Your task to perform on an android device: Go to Google Image 0: 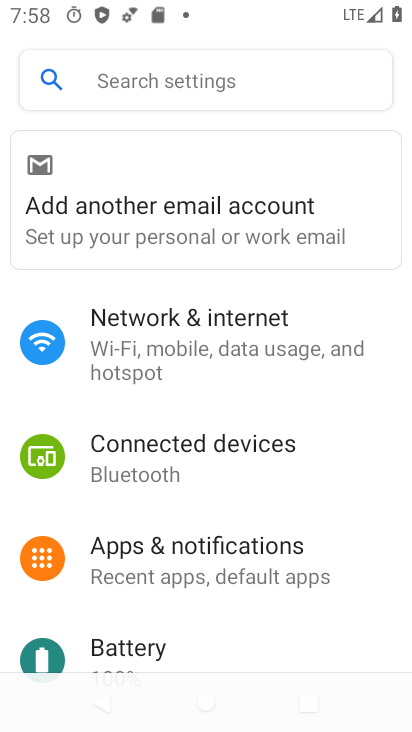
Step 0: press home button
Your task to perform on an android device: Go to Google Image 1: 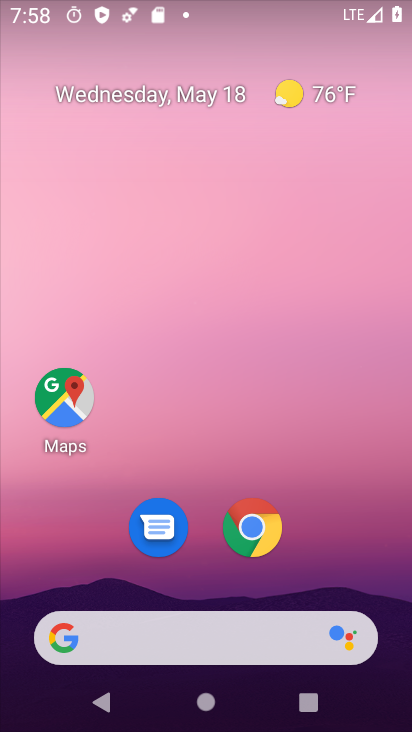
Step 1: drag from (395, 649) to (394, 316)
Your task to perform on an android device: Go to Google Image 2: 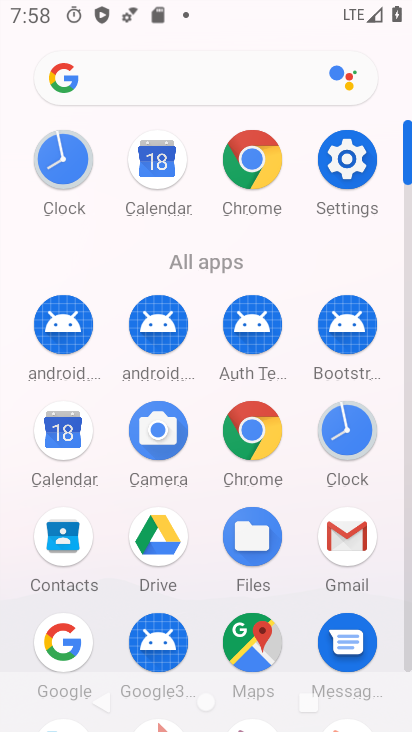
Step 2: click (64, 654)
Your task to perform on an android device: Go to Google Image 3: 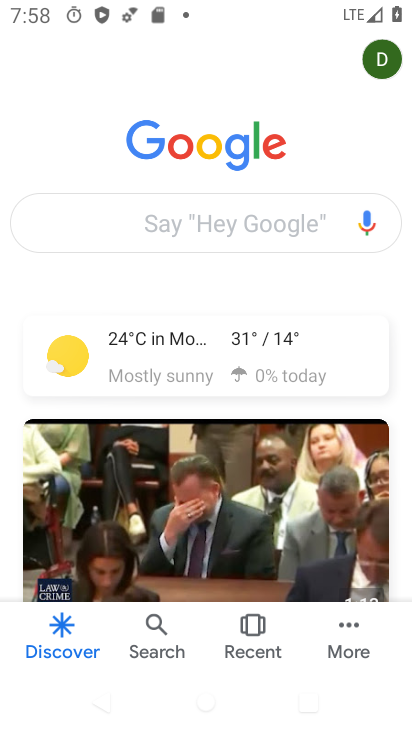
Step 3: task complete